Your task to perform on an android device: Open Google Maps Image 0: 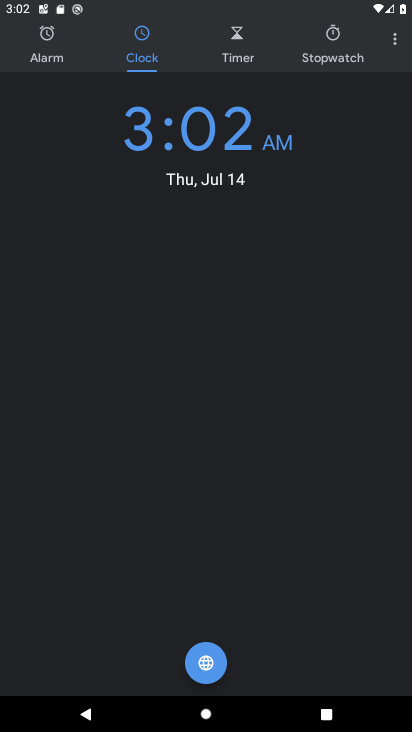
Step 0: press home button
Your task to perform on an android device: Open Google Maps Image 1: 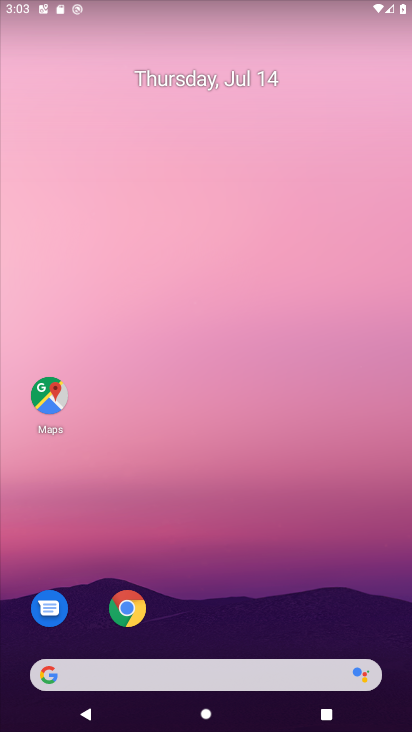
Step 1: click (49, 402)
Your task to perform on an android device: Open Google Maps Image 2: 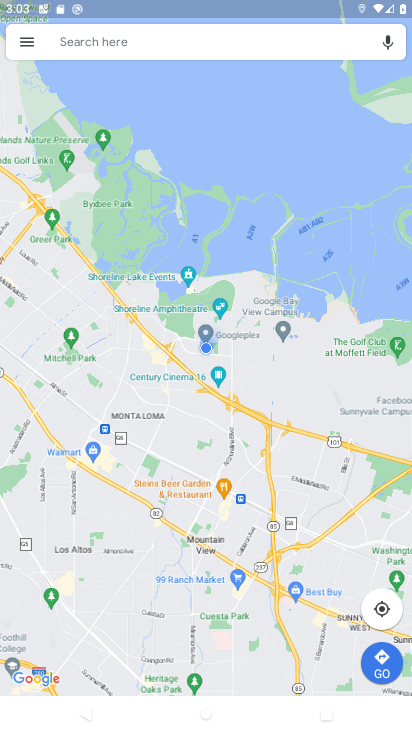
Step 2: task complete